Your task to perform on an android device: See recent photos Image 0: 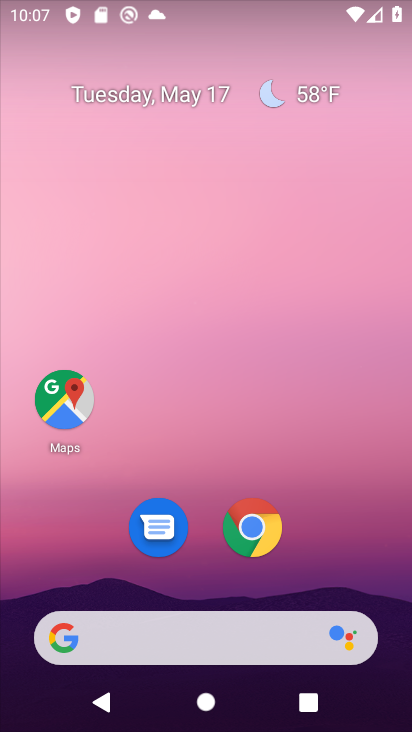
Step 0: press home button
Your task to perform on an android device: See recent photos Image 1: 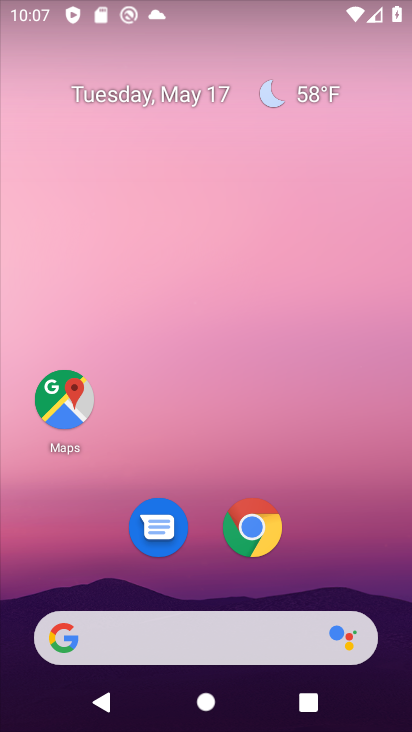
Step 1: drag from (371, 581) to (344, 14)
Your task to perform on an android device: See recent photos Image 2: 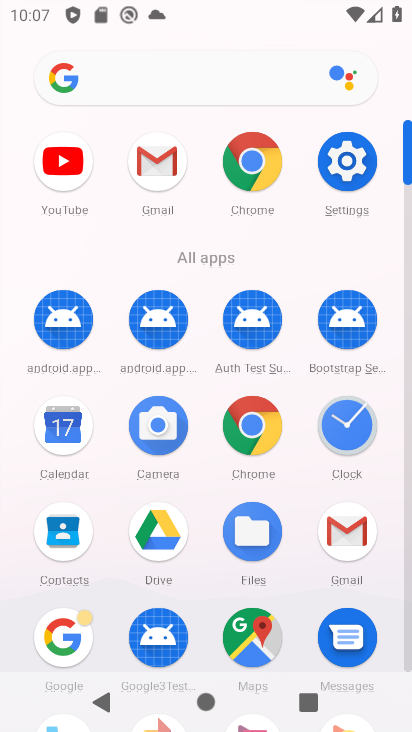
Step 2: drag from (405, 503) to (406, 466)
Your task to perform on an android device: See recent photos Image 3: 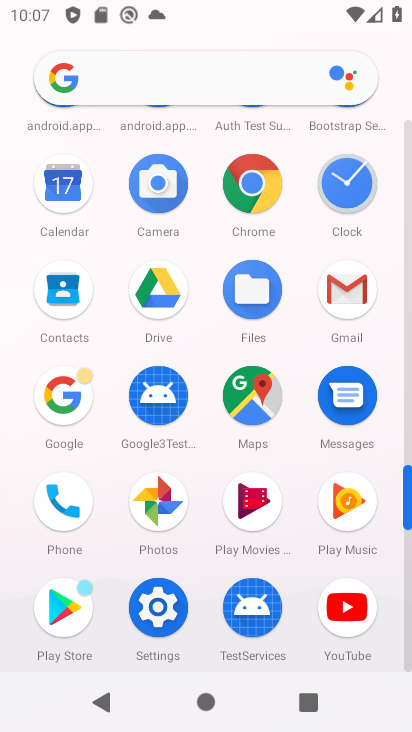
Step 3: click (163, 511)
Your task to perform on an android device: See recent photos Image 4: 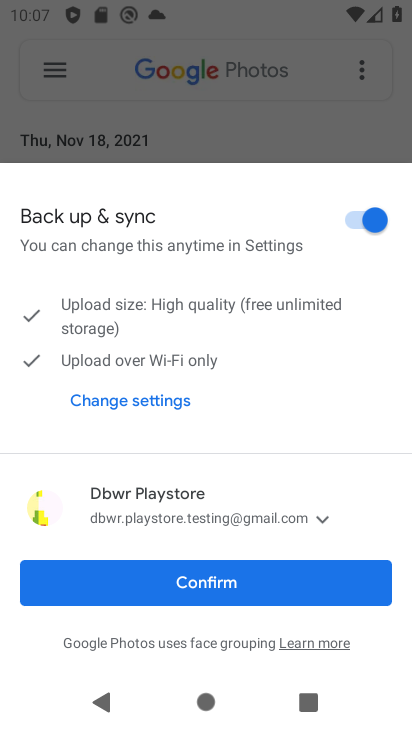
Step 4: click (194, 588)
Your task to perform on an android device: See recent photos Image 5: 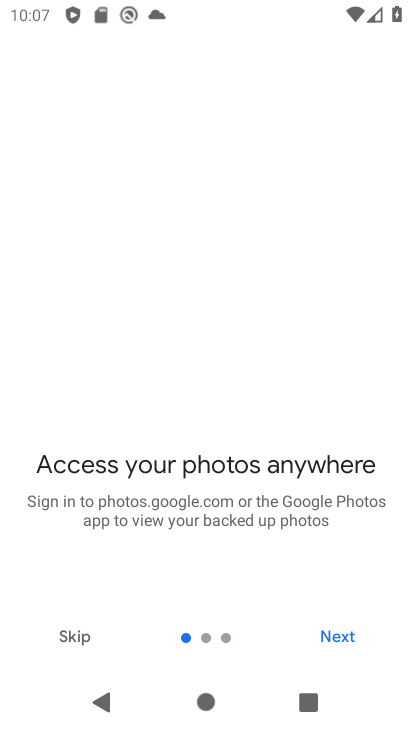
Step 5: click (56, 635)
Your task to perform on an android device: See recent photos Image 6: 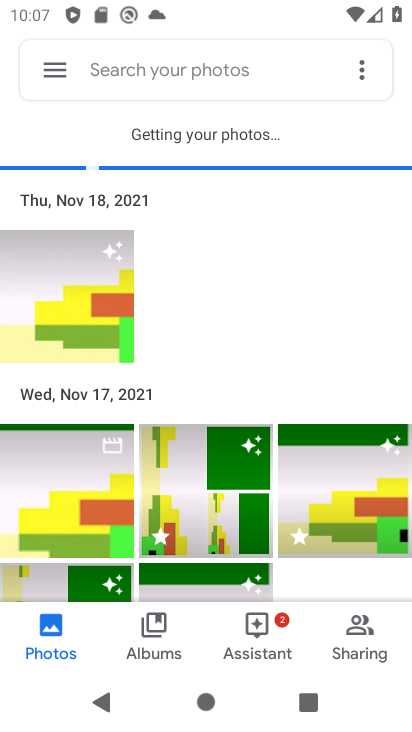
Step 6: task complete